Your task to perform on an android device: Open Amazon Image 0: 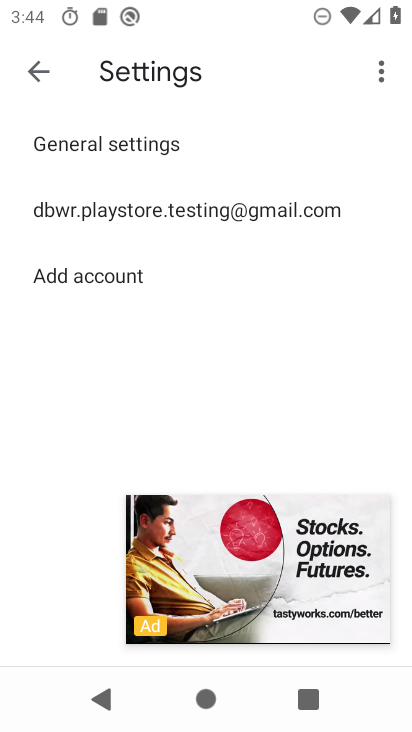
Step 0: click (366, 517)
Your task to perform on an android device: Open Amazon Image 1: 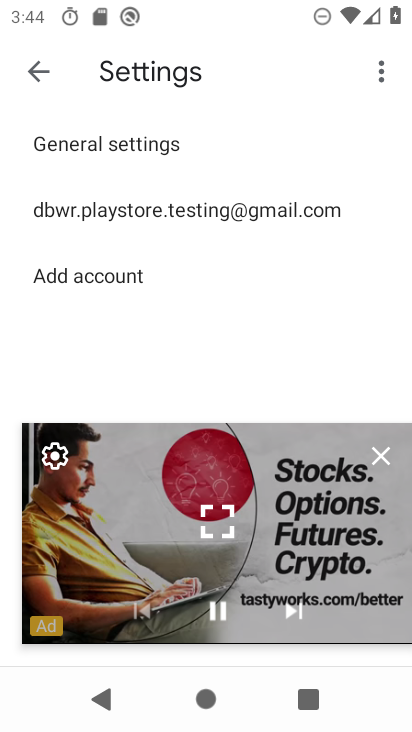
Step 1: click (386, 451)
Your task to perform on an android device: Open Amazon Image 2: 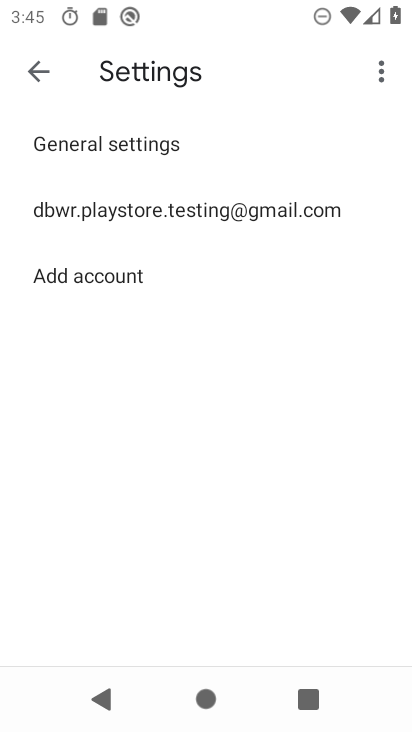
Step 2: press home button
Your task to perform on an android device: Open Amazon Image 3: 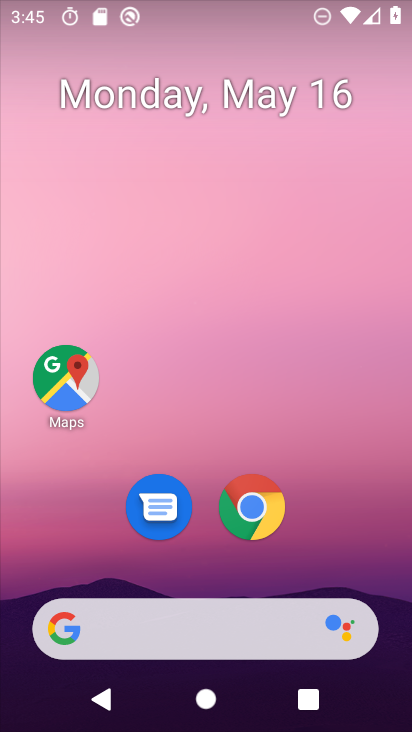
Step 3: drag from (329, 544) to (364, 51)
Your task to perform on an android device: Open Amazon Image 4: 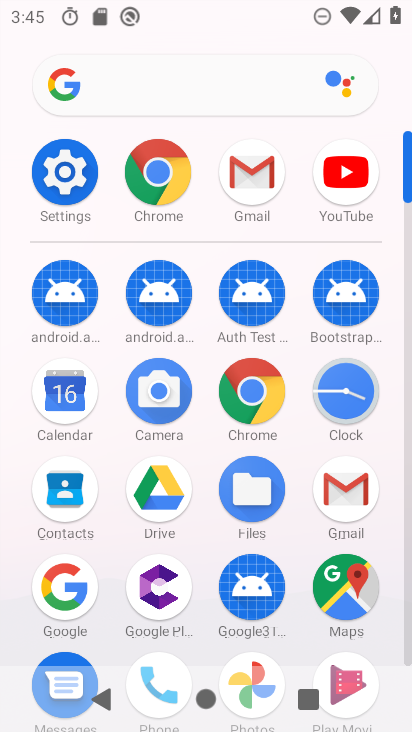
Step 4: click (155, 156)
Your task to perform on an android device: Open Amazon Image 5: 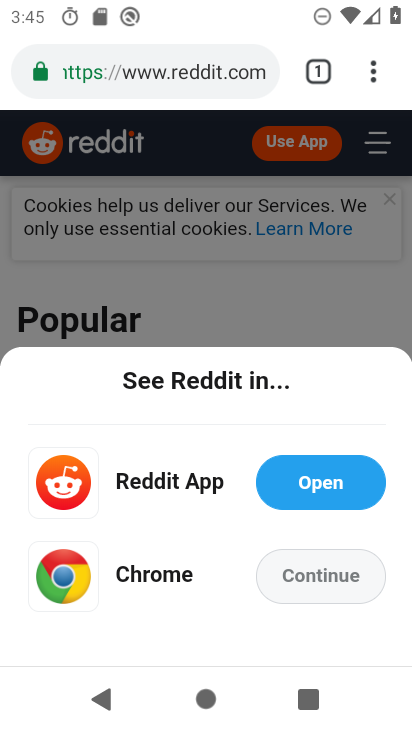
Step 5: click (196, 76)
Your task to perform on an android device: Open Amazon Image 6: 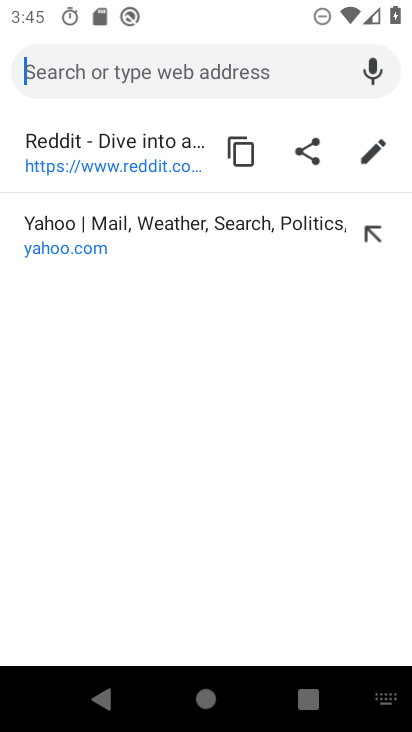
Step 6: type "amazon"
Your task to perform on an android device: Open Amazon Image 7: 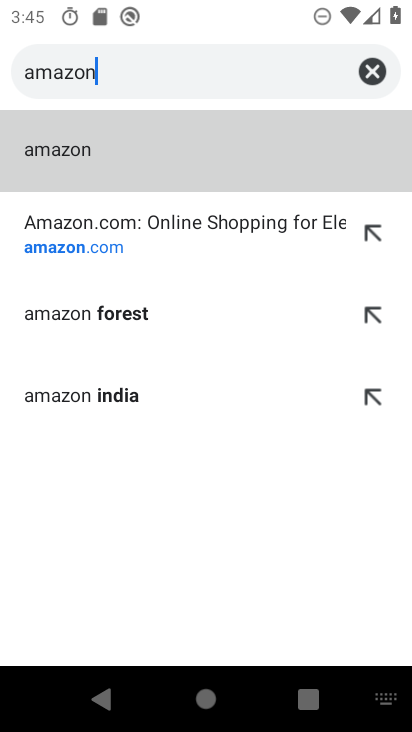
Step 7: click (104, 237)
Your task to perform on an android device: Open Amazon Image 8: 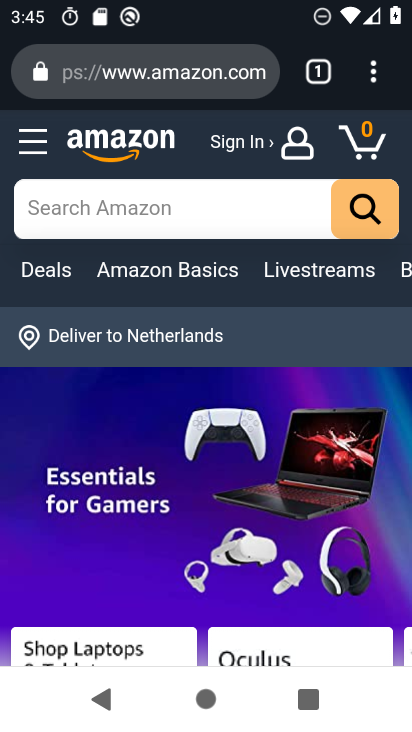
Step 8: task complete